Your task to perform on an android device: Search for Italian restaurants on Maps Image 0: 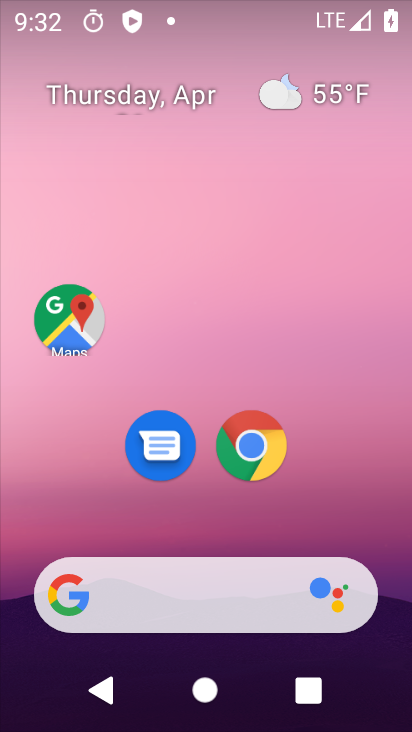
Step 0: click (71, 328)
Your task to perform on an android device: Search for Italian restaurants on Maps Image 1: 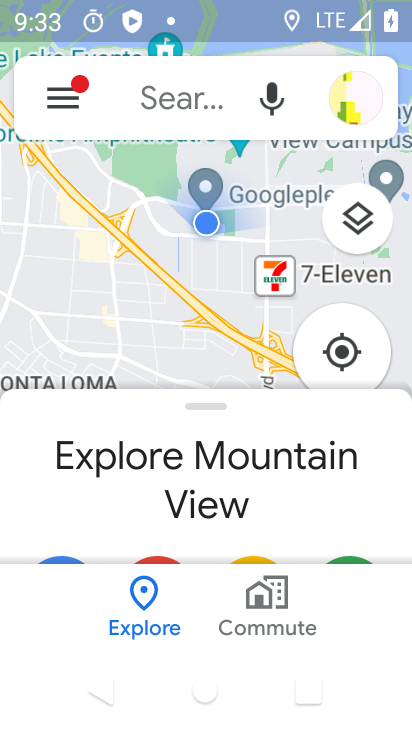
Step 1: click (145, 94)
Your task to perform on an android device: Search for Italian restaurants on Maps Image 2: 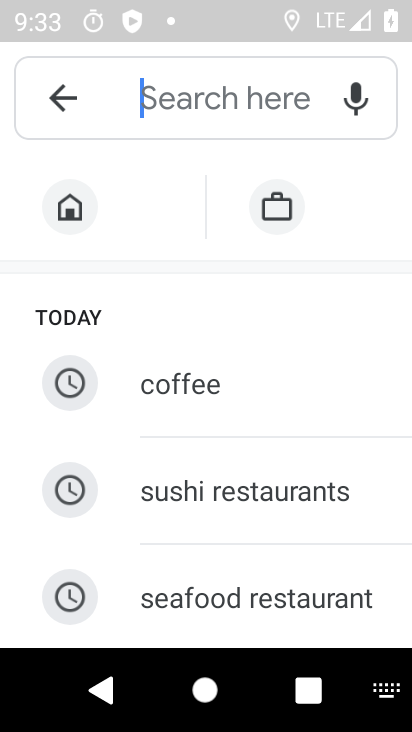
Step 2: type "italian restaurant"
Your task to perform on an android device: Search for Italian restaurants on Maps Image 3: 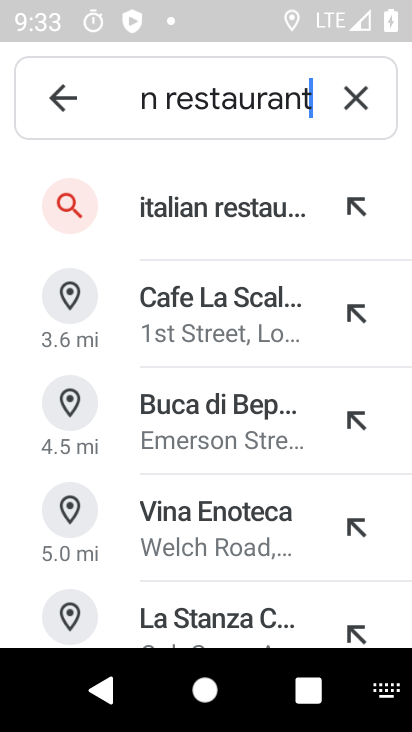
Step 3: click (173, 212)
Your task to perform on an android device: Search for Italian restaurants on Maps Image 4: 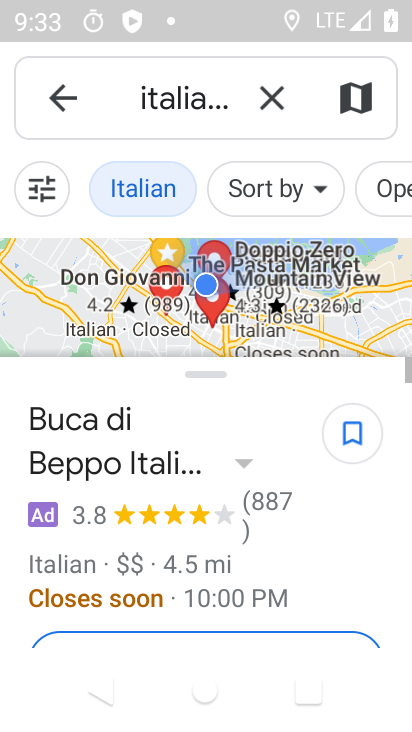
Step 4: task complete